Your task to perform on an android device: Open Google Chrome Image 0: 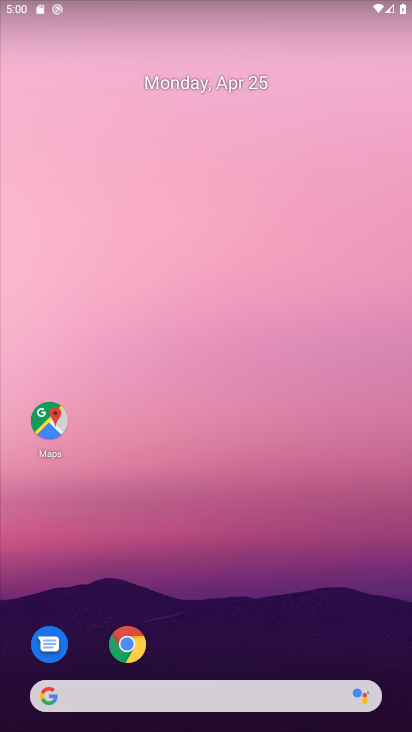
Step 0: click (133, 634)
Your task to perform on an android device: Open Google Chrome Image 1: 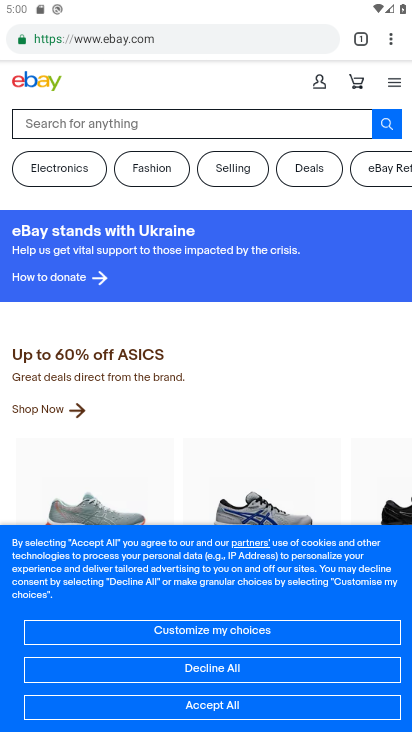
Step 1: task complete